Your task to perform on an android device: Open Amazon Image 0: 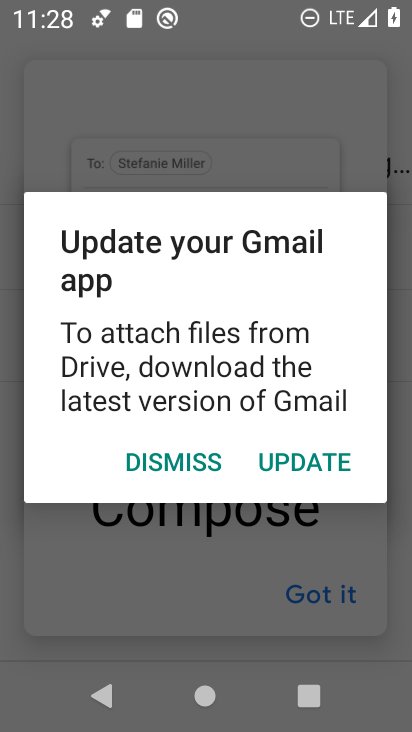
Step 0: click (348, 461)
Your task to perform on an android device: Open Amazon Image 1: 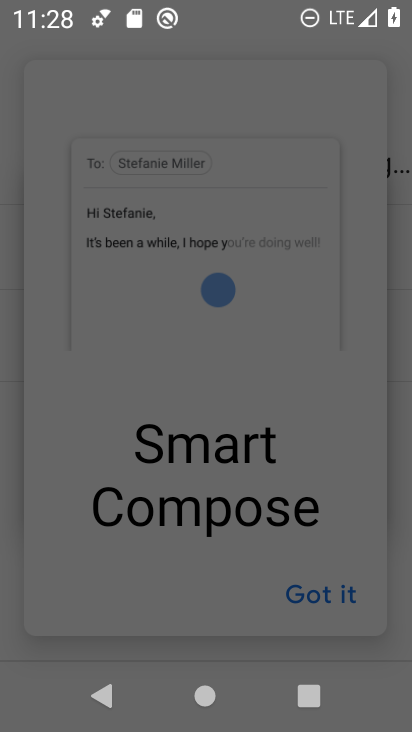
Step 1: press home button
Your task to perform on an android device: Open Amazon Image 2: 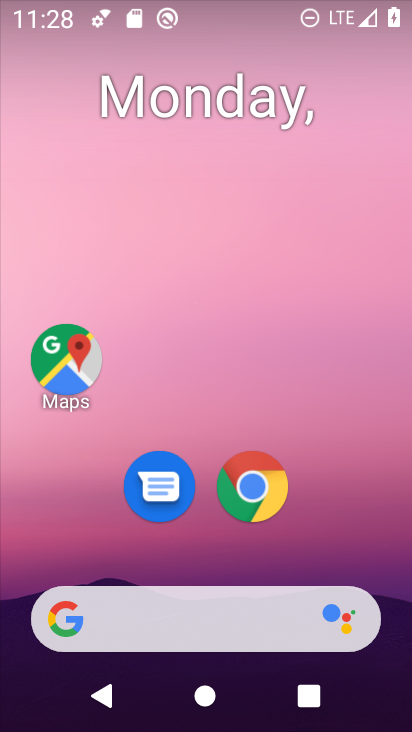
Step 2: click (237, 507)
Your task to perform on an android device: Open Amazon Image 3: 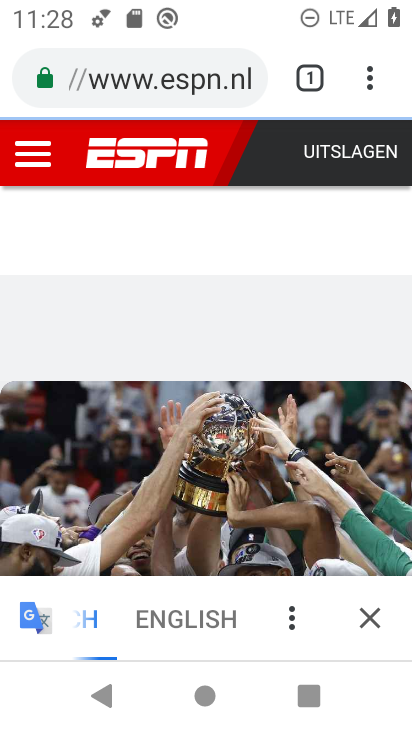
Step 3: click (298, 81)
Your task to perform on an android device: Open Amazon Image 4: 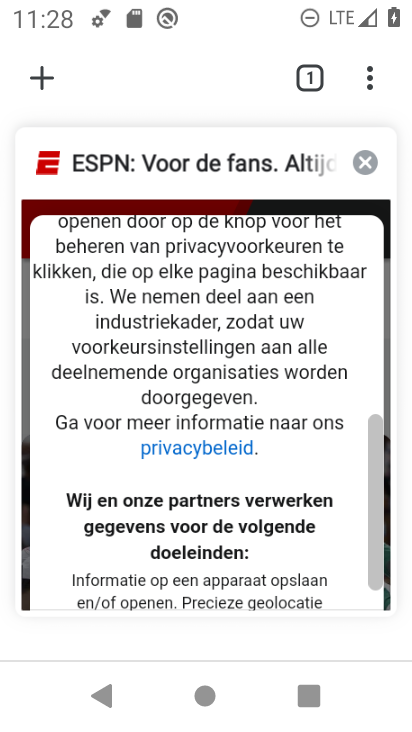
Step 4: click (47, 91)
Your task to perform on an android device: Open Amazon Image 5: 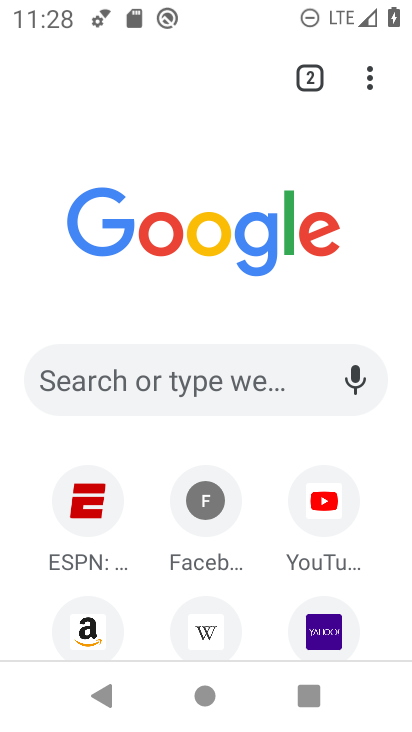
Step 5: click (79, 638)
Your task to perform on an android device: Open Amazon Image 6: 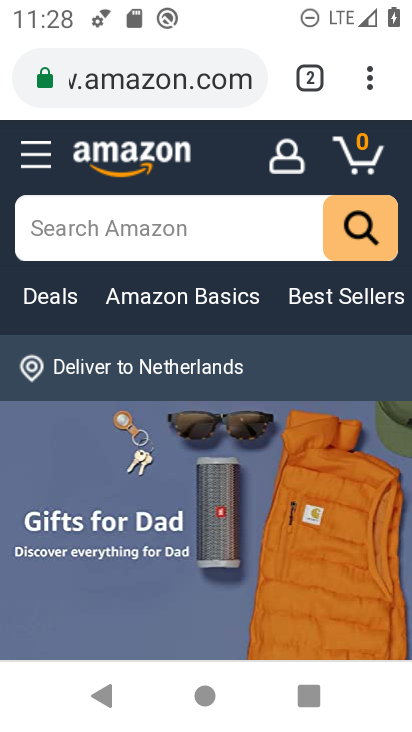
Step 6: task complete